Your task to perform on an android device: turn off location history Image 0: 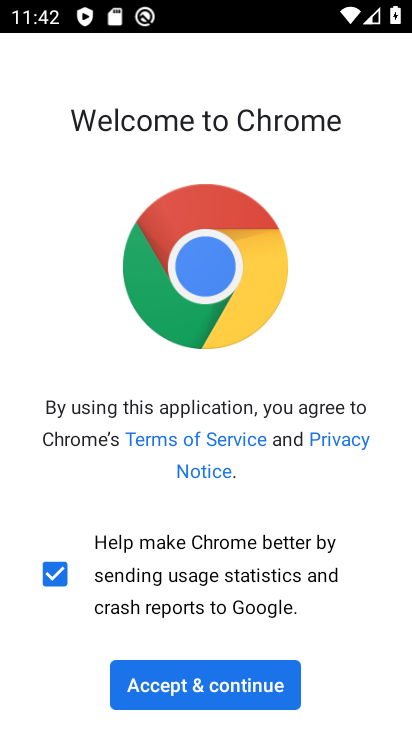
Step 0: press home button
Your task to perform on an android device: turn off location history Image 1: 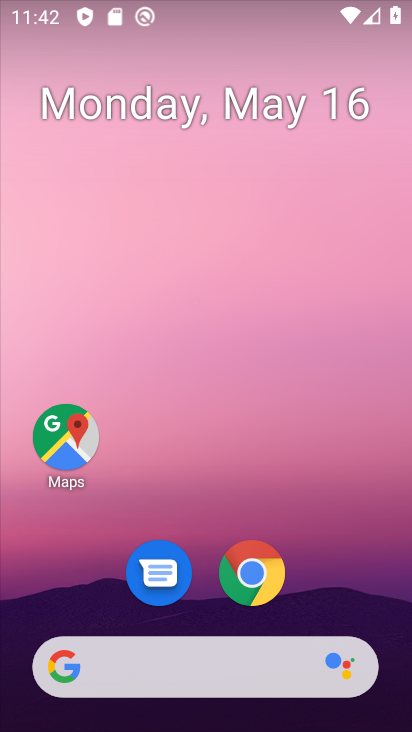
Step 1: drag from (231, 674) to (252, 1)
Your task to perform on an android device: turn off location history Image 2: 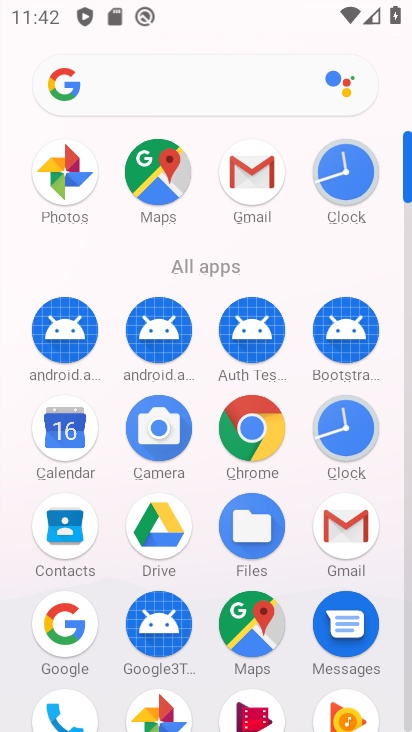
Step 2: drag from (301, 558) to (279, 17)
Your task to perform on an android device: turn off location history Image 3: 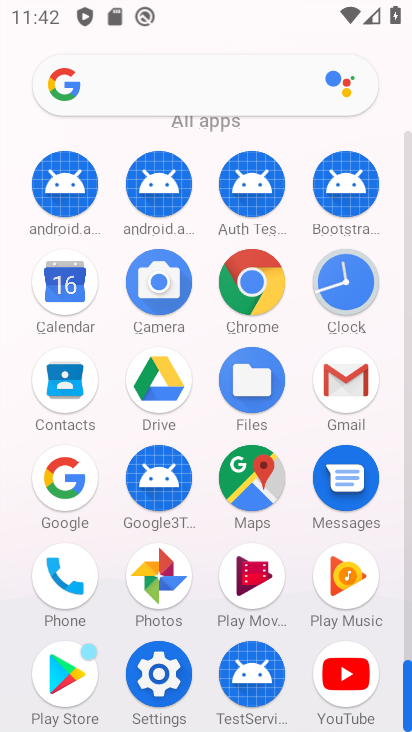
Step 3: click (173, 654)
Your task to perform on an android device: turn off location history Image 4: 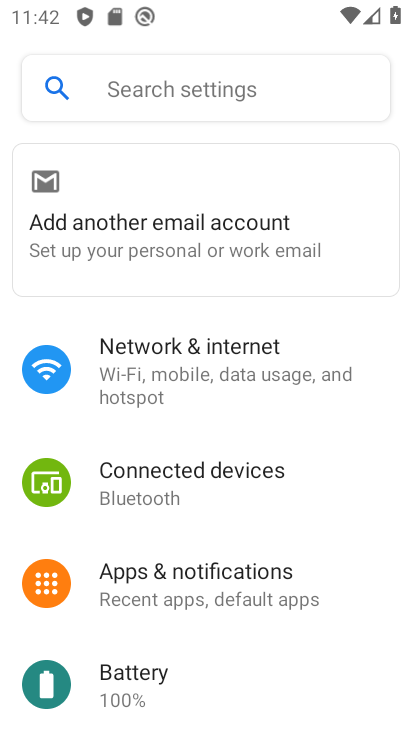
Step 4: drag from (183, 616) to (230, 45)
Your task to perform on an android device: turn off location history Image 5: 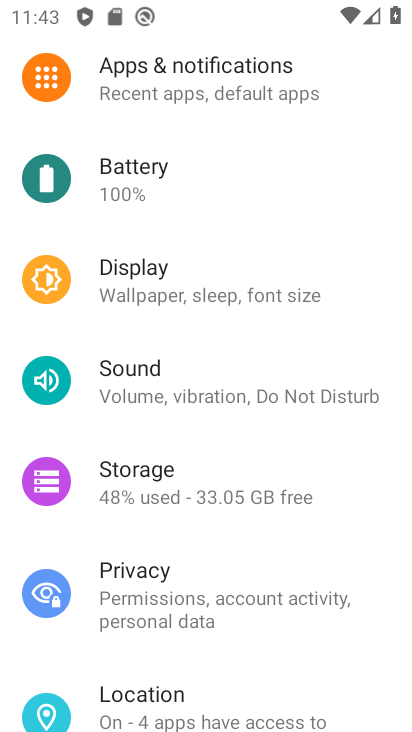
Step 5: click (138, 695)
Your task to perform on an android device: turn off location history Image 6: 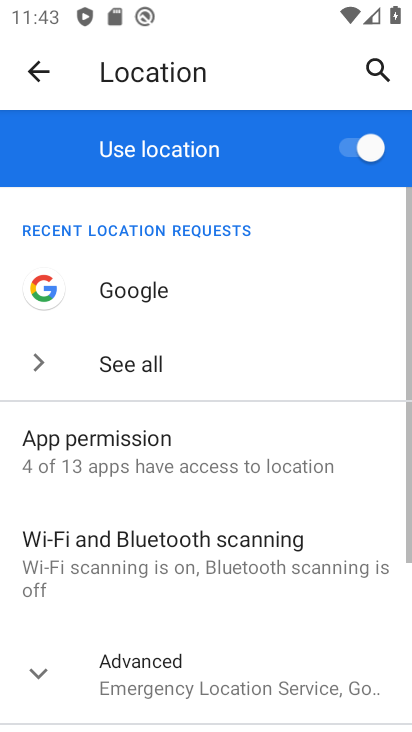
Step 6: click (122, 670)
Your task to perform on an android device: turn off location history Image 7: 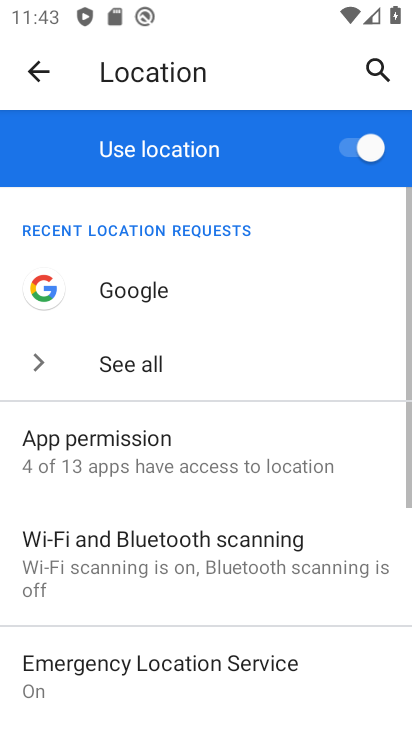
Step 7: drag from (154, 654) to (197, 336)
Your task to perform on an android device: turn off location history Image 8: 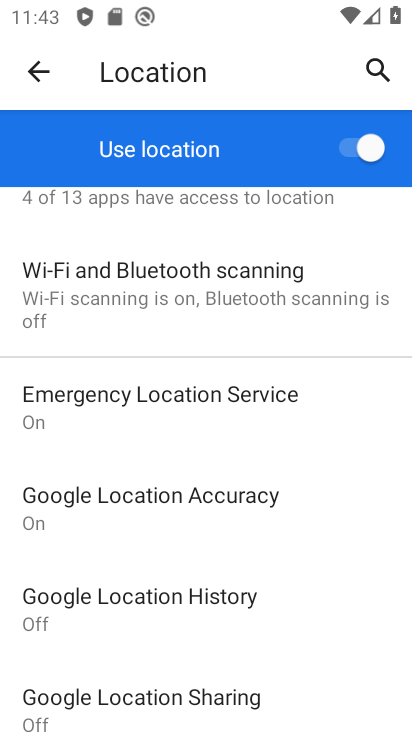
Step 8: click (124, 580)
Your task to perform on an android device: turn off location history Image 9: 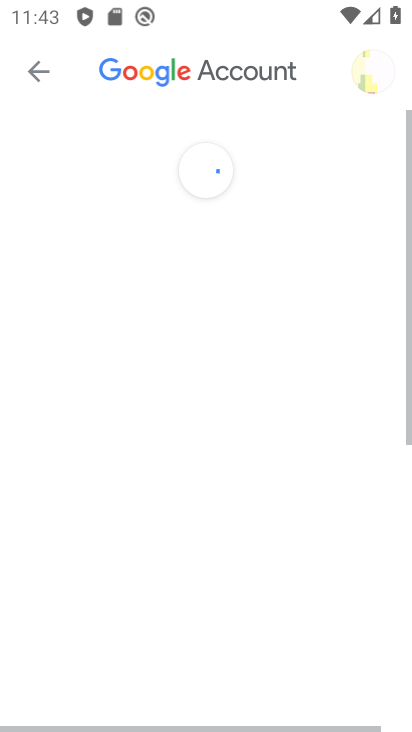
Step 9: task complete